Your task to perform on an android device: Turn on the flashlight Image 0: 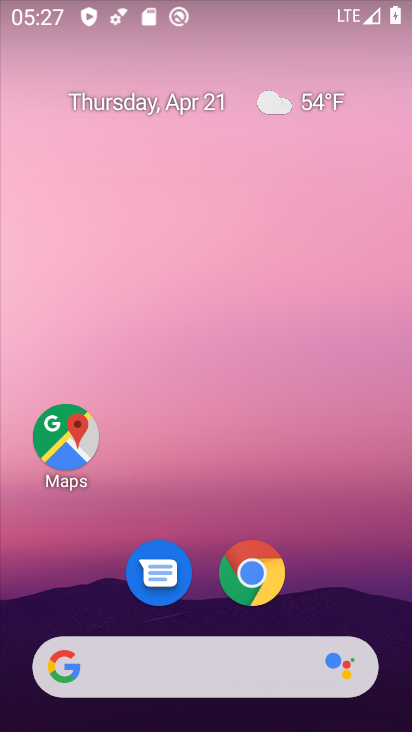
Step 0: drag from (215, 14) to (246, 391)
Your task to perform on an android device: Turn on the flashlight Image 1: 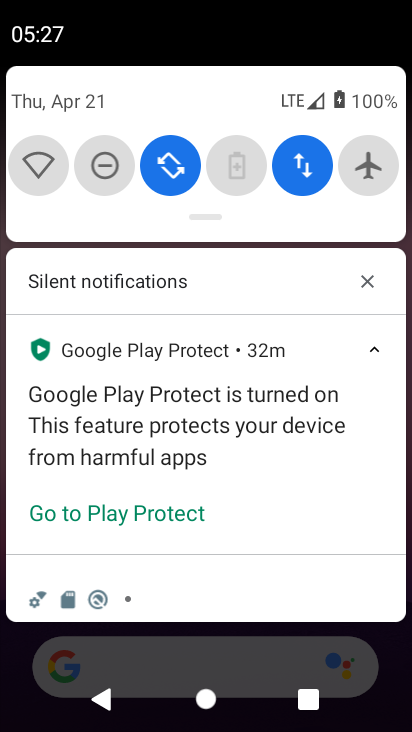
Step 1: drag from (202, 212) to (179, 448)
Your task to perform on an android device: Turn on the flashlight Image 2: 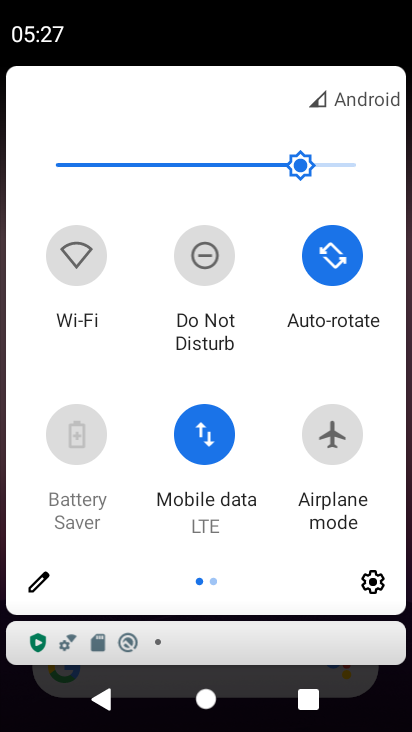
Step 2: click (35, 575)
Your task to perform on an android device: Turn on the flashlight Image 3: 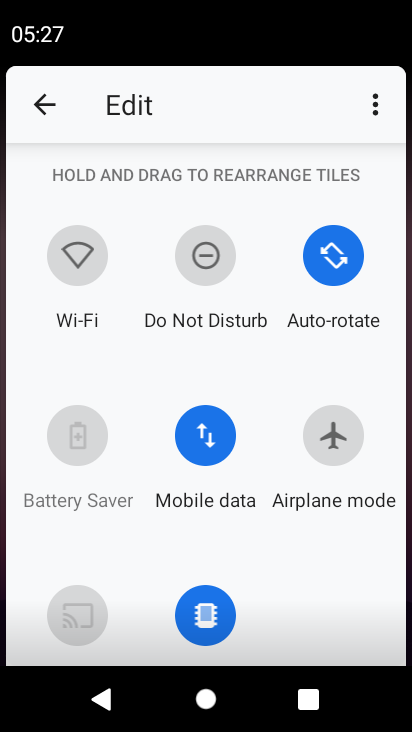
Step 3: task complete